Your task to perform on an android device: empty trash in google photos Image 0: 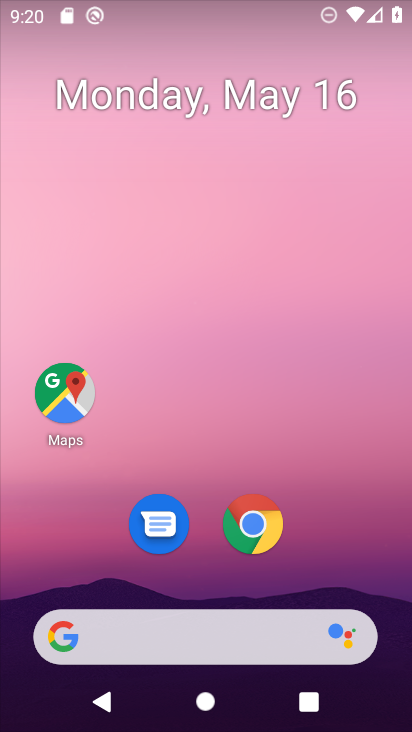
Step 0: drag from (344, 544) to (367, 61)
Your task to perform on an android device: empty trash in google photos Image 1: 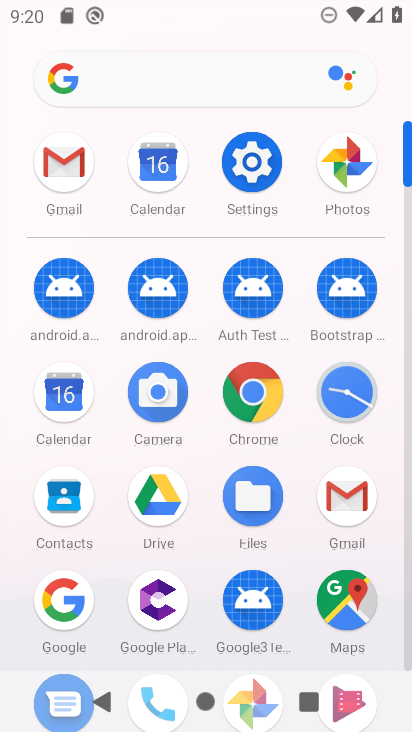
Step 1: click (345, 151)
Your task to perform on an android device: empty trash in google photos Image 2: 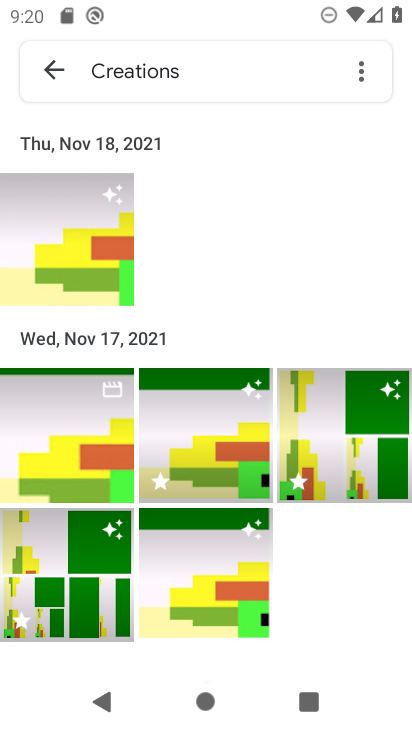
Step 2: click (42, 60)
Your task to perform on an android device: empty trash in google photos Image 3: 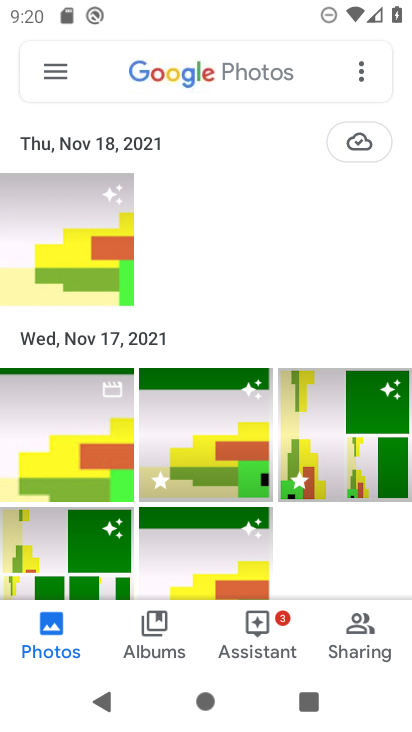
Step 3: click (42, 61)
Your task to perform on an android device: empty trash in google photos Image 4: 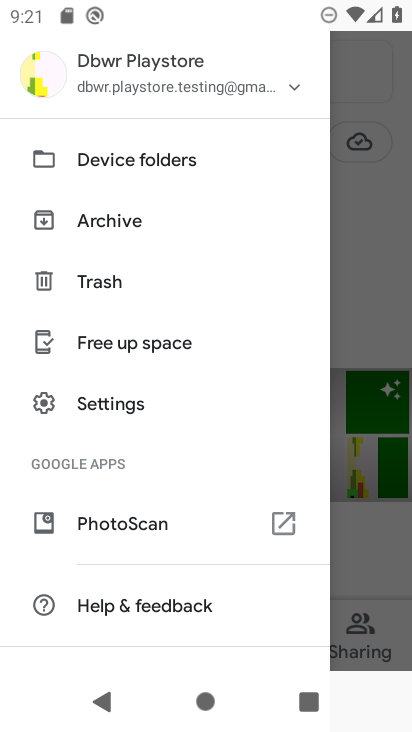
Step 4: click (101, 271)
Your task to perform on an android device: empty trash in google photos Image 5: 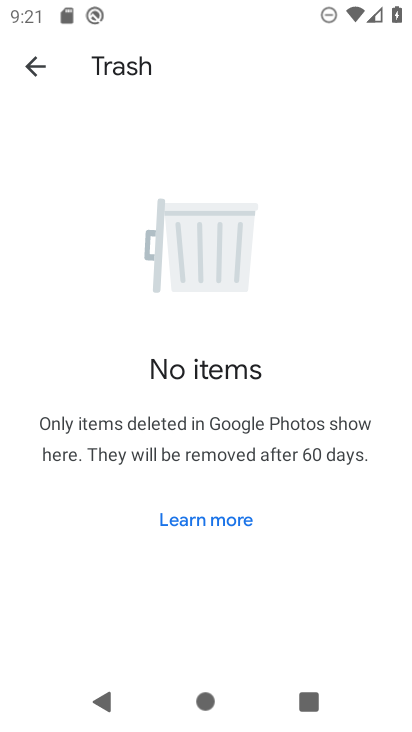
Step 5: task complete